Your task to perform on an android device: Go to Yahoo.com Image 0: 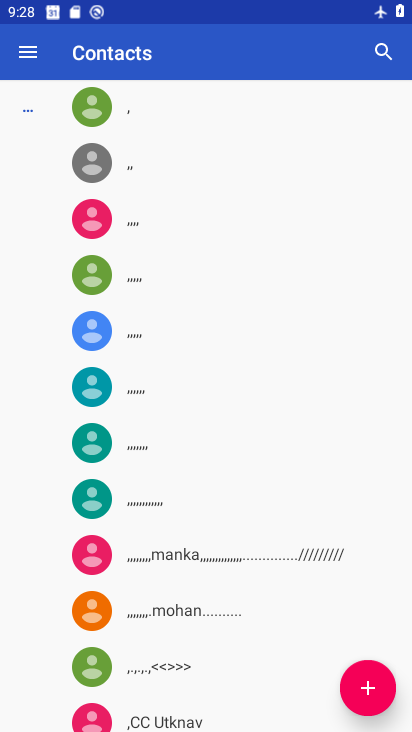
Step 0: drag from (137, 640) to (204, 242)
Your task to perform on an android device: Go to Yahoo.com Image 1: 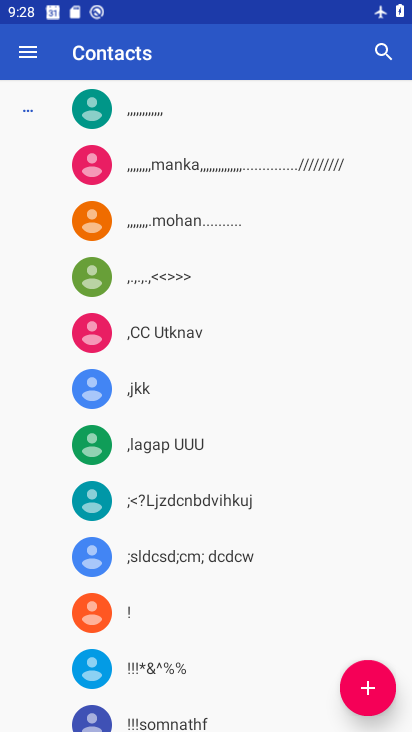
Step 1: press home button
Your task to perform on an android device: Go to Yahoo.com Image 2: 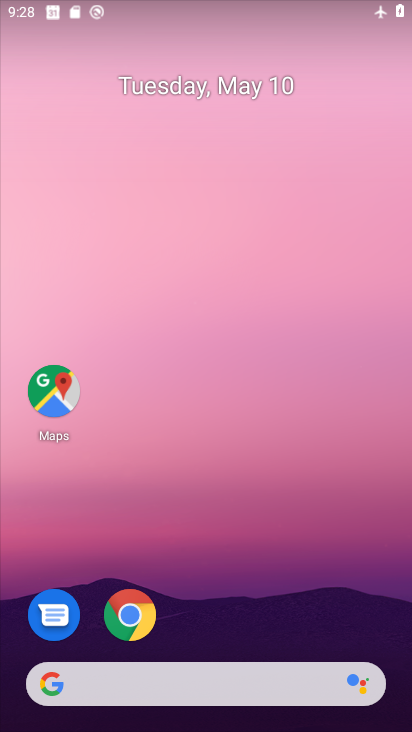
Step 2: drag from (189, 645) to (242, 11)
Your task to perform on an android device: Go to Yahoo.com Image 3: 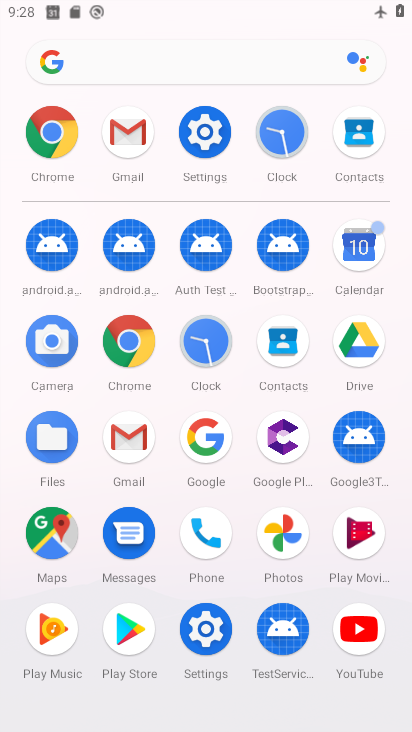
Step 3: click (222, 49)
Your task to perform on an android device: Go to Yahoo.com Image 4: 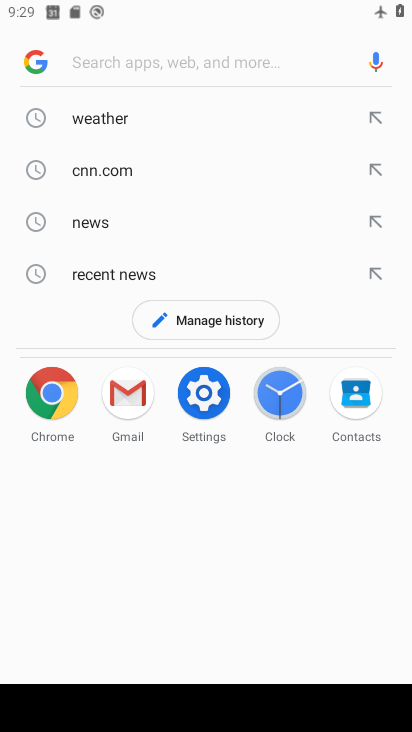
Step 4: type "yahoo"
Your task to perform on an android device: Go to Yahoo.com Image 5: 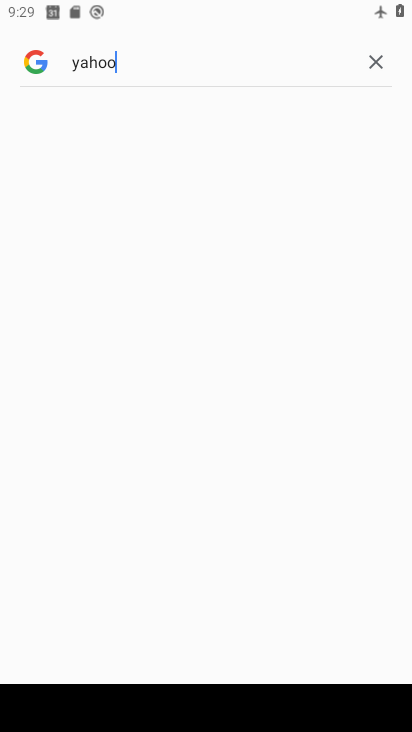
Step 5: click (130, 148)
Your task to perform on an android device: Go to Yahoo.com Image 6: 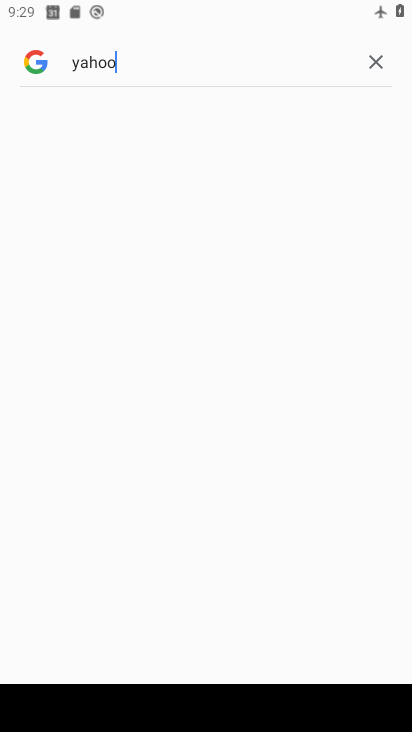
Step 6: task complete